Your task to perform on an android device: Go to Reddit.com Image 0: 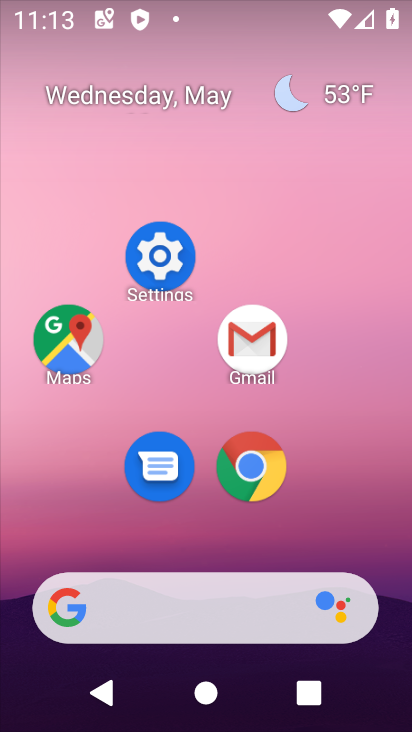
Step 0: click (240, 235)
Your task to perform on an android device: Go to Reddit.com Image 1: 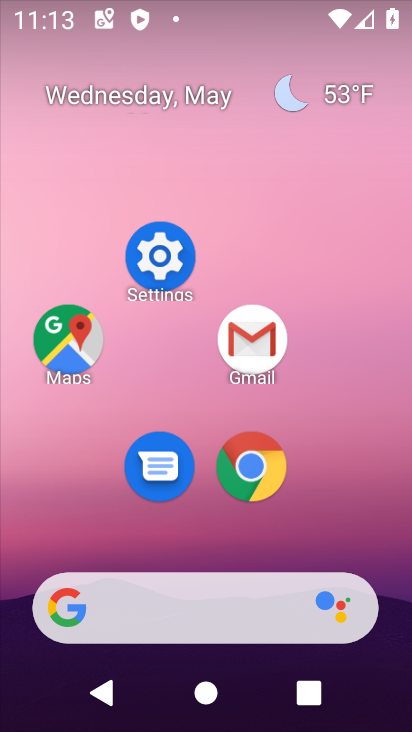
Step 1: drag from (191, 550) to (210, 128)
Your task to perform on an android device: Go to Reddit.com Image 2: 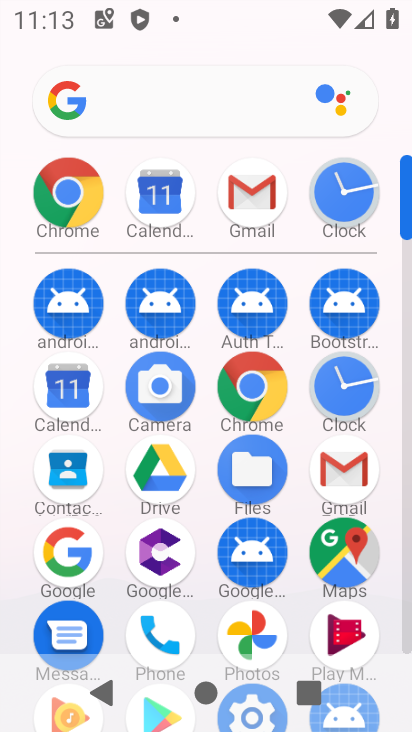
Step 2: click (196, 116)
Your task to perform on an android device: Go to Reddit.com Image 3: 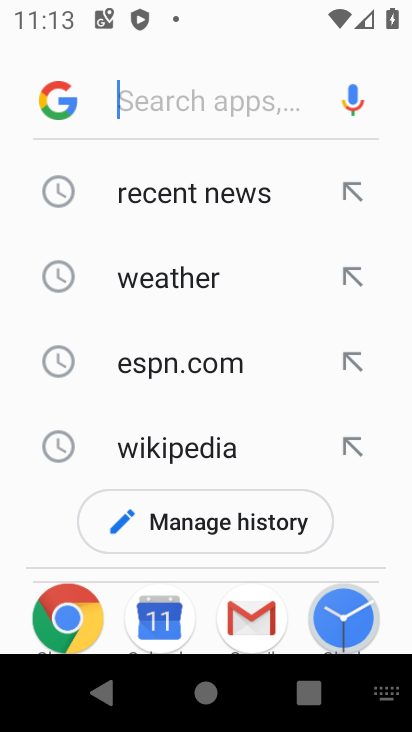
Step 3: type "reddit.com"
Your task to perform on an android device: Go to Reddit.com Image 4: 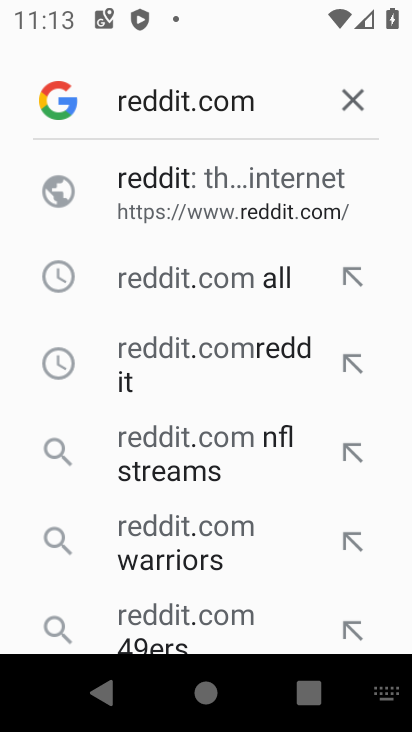
Step 4: click (186, 203)
Your task to perform on an android device: Go to Reddit.com Image 5: 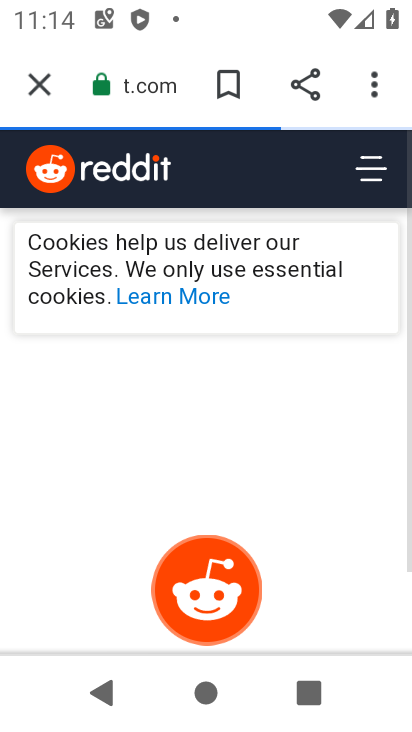
Step 5: task complete